Your task to perform on an android device: Show me the best rated 42 inch TV on Walmart. Image 0: 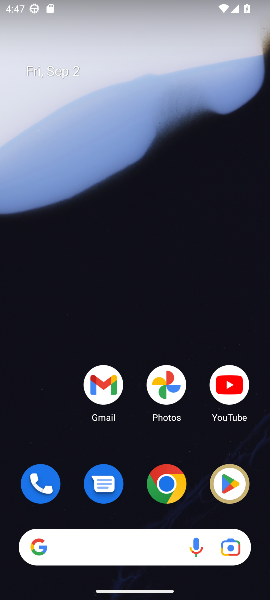
Step 0: click (166, 484)
Your task to perform on an android device: Show me the best rated 42 inch TV on Walmart. Image 1: 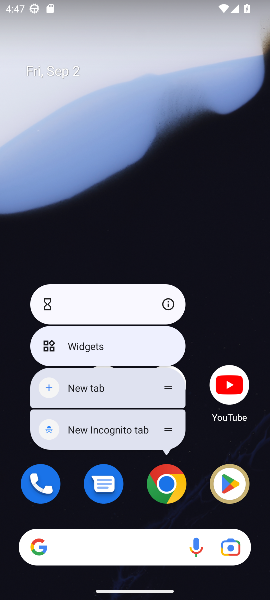
Step 1: click (177, 472)
Your task to perform on an android device: Show me the best rated 42 inch TV on Walmart. Image 2: 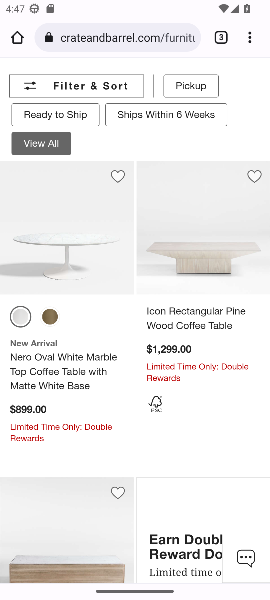
Step 2: click (157, 39)
Your task to perform on an android device: Show me the best rated 42 inch TV on Walmart. Image 3: 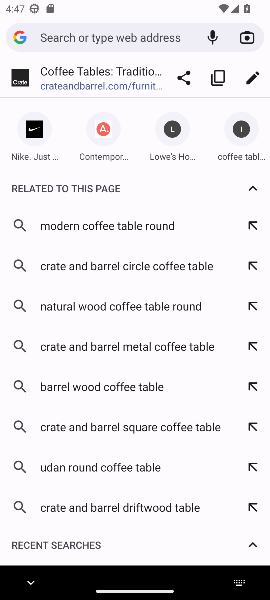
Step 3: type "Walmart"
Your task to perform on an android device: Show me the best rated 42 inch TV on Walmart. Image 4: 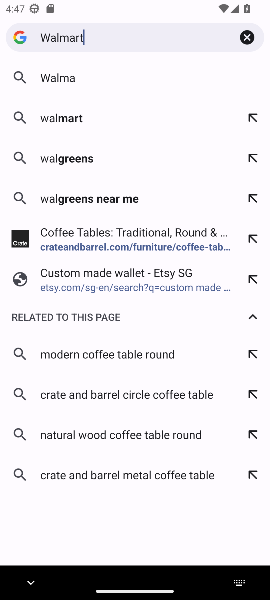
Step 4: press enter
Your task to perform on an android device: Show me the best rated 42 inch TV on Walmart. Image 5: 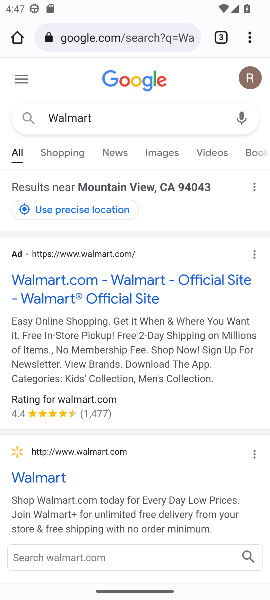
Step 5: click (104, 280)
Your task to perform on an android device: Show me the best rated 42 inch TV on Walmart. Image 6: 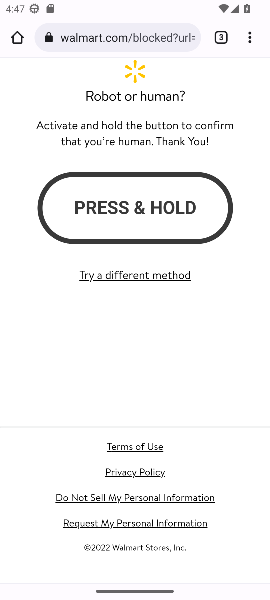
Step 6: drag from (197, 98) to (222, 180)
Your task to perform on an android device: Show me the best rated 42 inch TV on Walmart. Image 7: 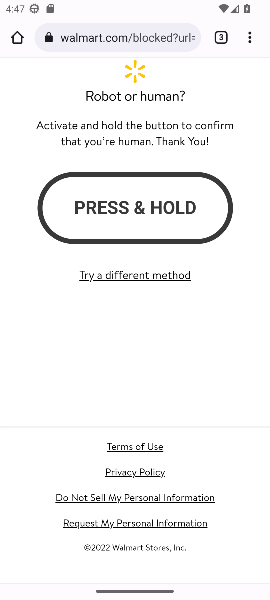
Step 7: drag from (60, 459) to (177, 126)
Your task to perform on an android device: Show me the best rated 42 inch TV on Walmart. Image 8: 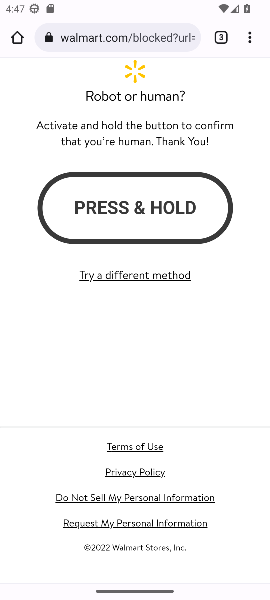
Step 8: drag from (190, 128) to (161, 342)
Your task to perform on an android device: Show me the best rated 42 inch TV on Walmart. Image 9: 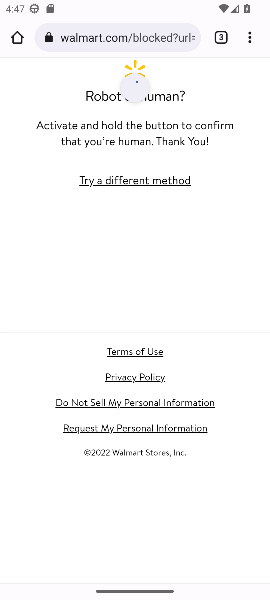
Step 9: press back button
Your task to perform on an android device: Show me the best rated 42 inch TV on Walmart. Image 10: 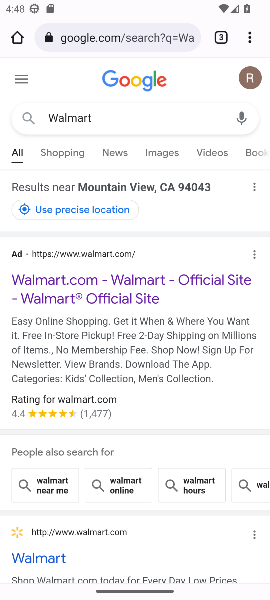
Step 10: click (56, 553)
Your task to perform on an android device: Show me the best rated 42 inch TV on Walmart. Image 11: 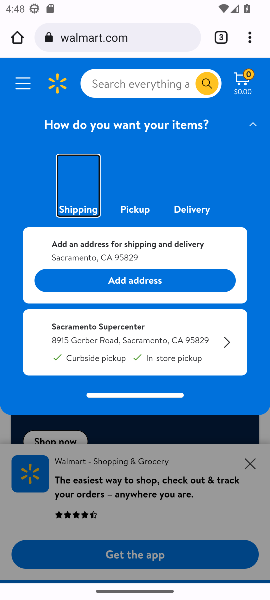
Step 11: click (144, 83)
Your task to perform on an android device: Show me the best rated 42 inch TV on Walmart. Image 12: 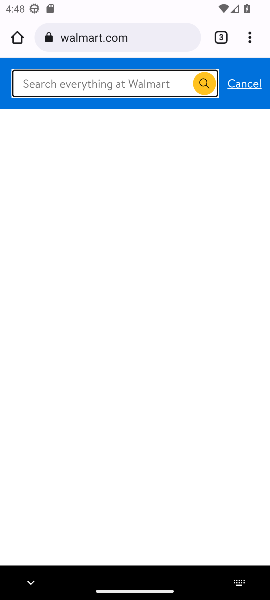
Step 12: type "42 inch TV"
Your task to perform on an android device: Show me the best rated 42 inch TV on Walmart. Image 13: 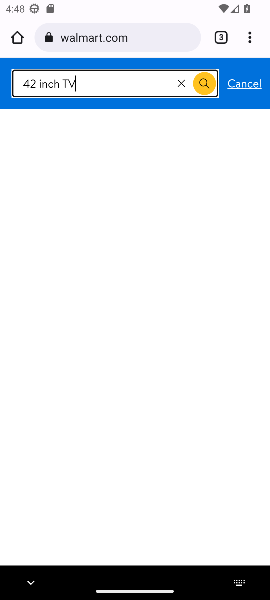
Step 13: press enter
Your task to perform on an android device: Show me the best rated 42 inch TV on Walmart. Image 14: 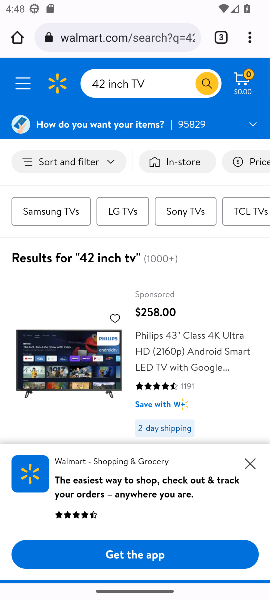
Step 14: click (252, 487)
Your task to perform on an android device: Show me the best rated 42 inch TV on Walmart. Image 15: 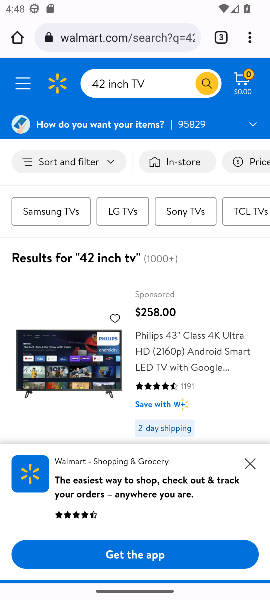
Step 15: click (250, 460)
Your task to perform on an android device: Show me the best rated 42 inch TV on Walmart. Image 16: 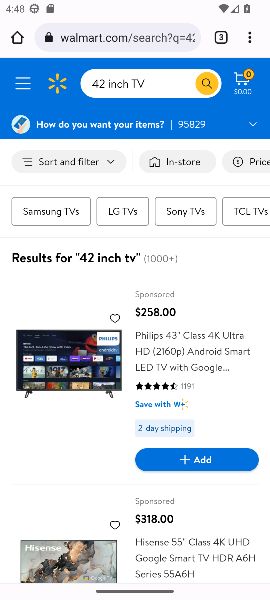
Step 16: task complete